Your task to perform on an android device: What's the weather going to be tomorrow? Image 0: 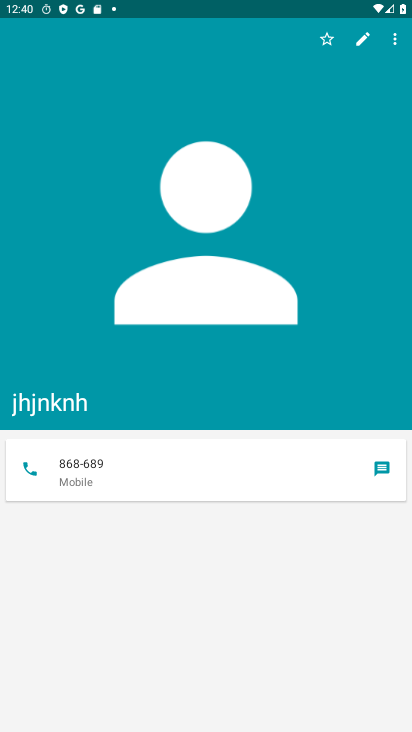
Step 0: drag from (204, 530) to (229, 315)
Your task to perform on an android device: What's the weather going to be tomorrow? Image 1: 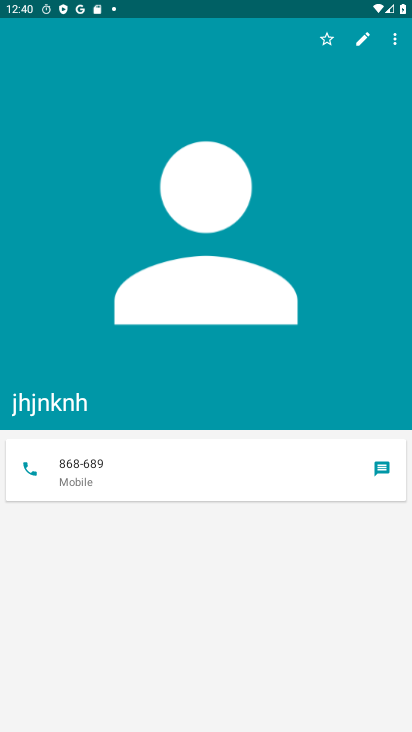
Step 1: press home button
Your task to perform on an android device: What's the weather going to be tomorrow? Image 2: 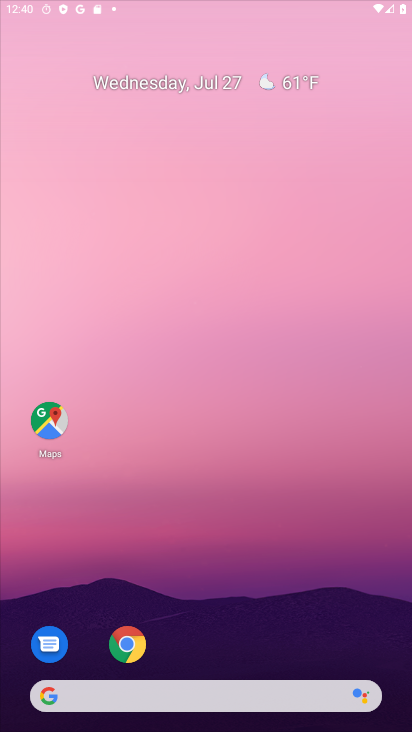
Step 2: drag from (231, 522) to (196, 84)
Your task to perform on an android device: What's the weather going to be tomorrow? Image 3: 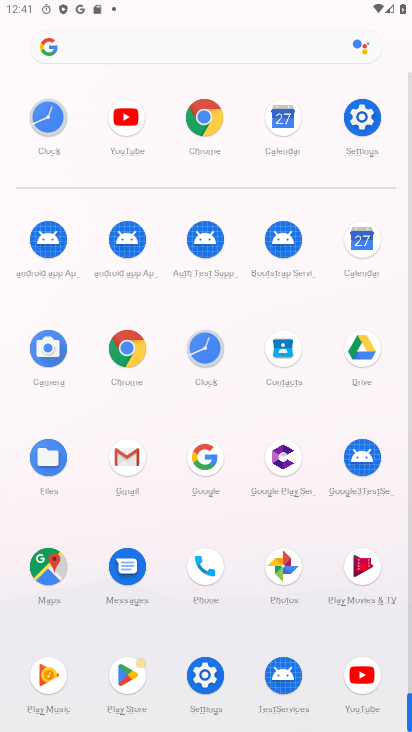
Step 3: click (96, 38)
Your task to perform on an android device: What's the weather going to be tomorrow? Image 4: 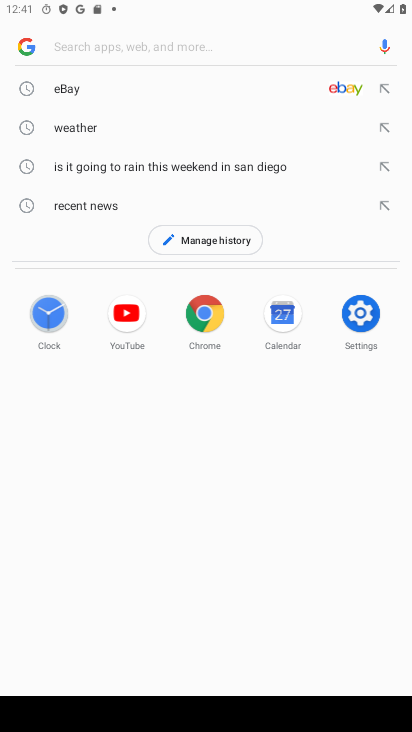
Step 4: type "What's the weather going to be tomorrow?"
Your task to perform on an android device: What's the weather going to be tomorrow? Image 5: 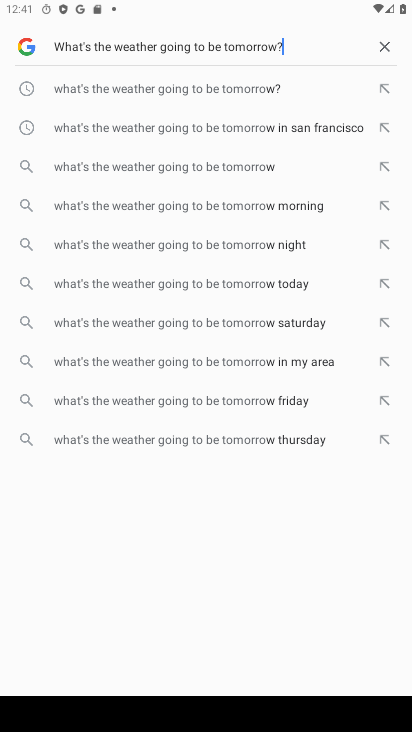
Step 5: type ""
Your task to perform on an android device: What's the weather going to be tomorrow? Image 6: 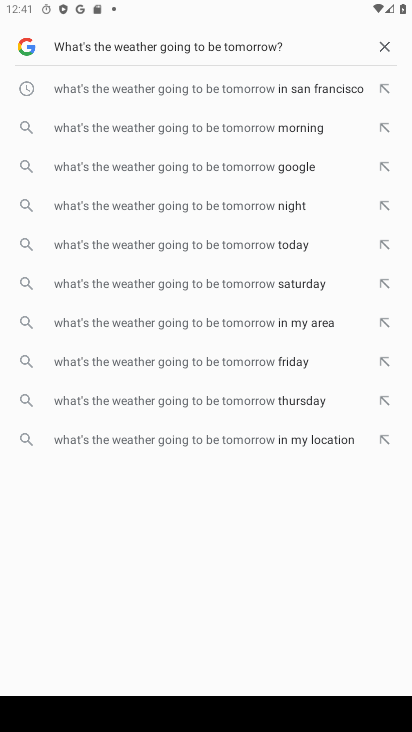
Step 6: click (252, 175)
Your task to perform on an android device: What's the weather going to be tomorrow? Image 7: 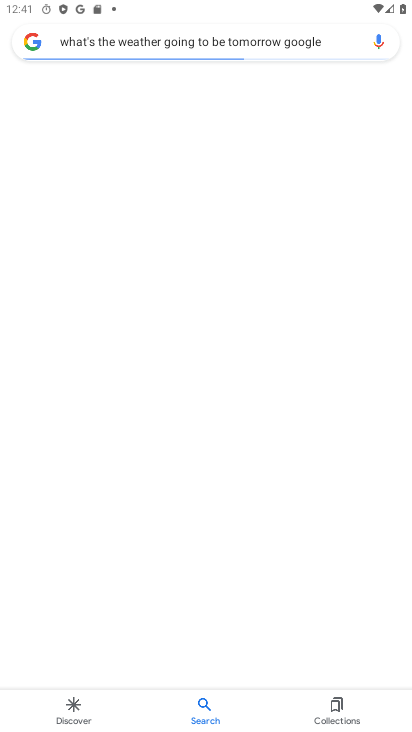
Step 7: task complete